Your task to perform on an android device: allow notifications from all sites in the chrome app Image 0: 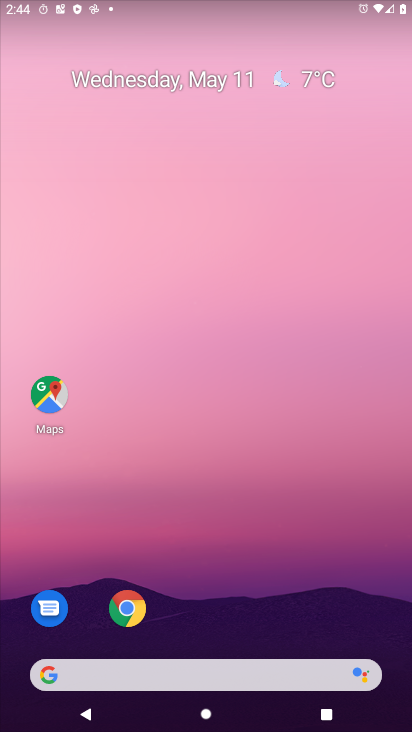
Step 0: drag from (255, 577) to (281, 167)
Your task to perform on an android device: allow notifications from all sites in the chrome app Image 1: 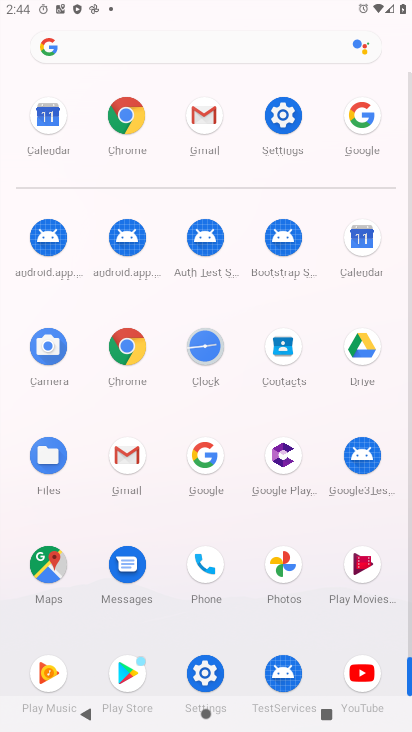
Step 1: click (121, 347)
Your task to perform on an android device: allow notifications from all sites in the chrome app Image 2: 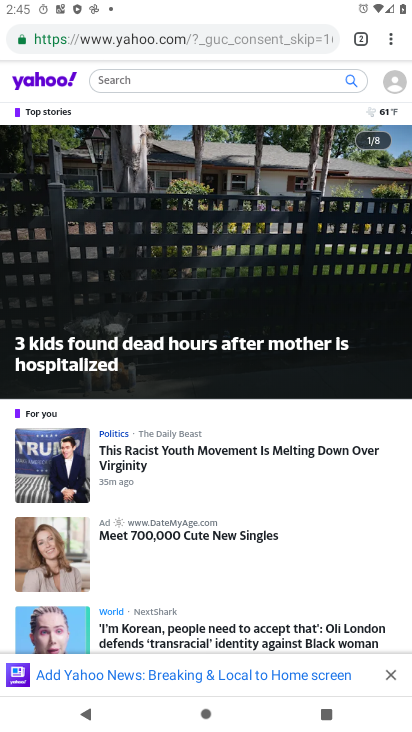
Step 2: click (386, 37)
Your task to perform on an android device: allow notifications from all sites in the chrome app Image 3: 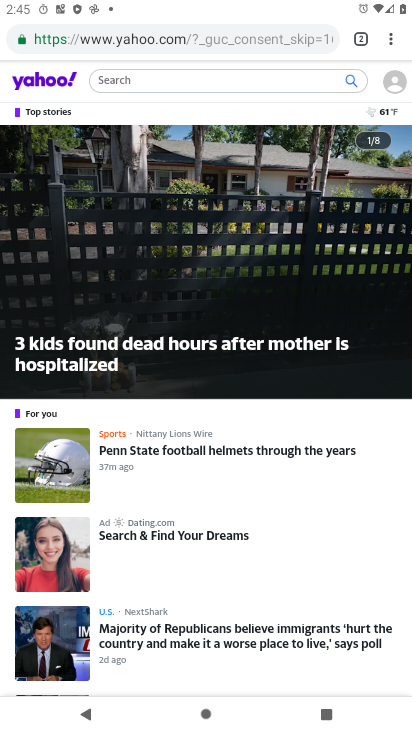
Step 3: click (385, 42)
Your task to perform on an android device: allow notifications from all sites in the chrome app Image 4: 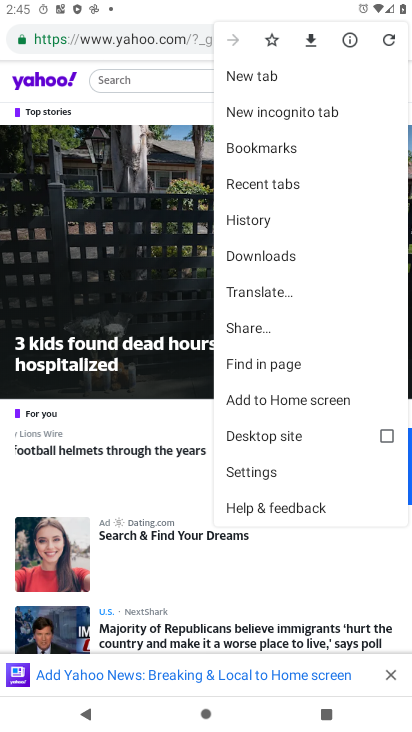
Step 4: drag from (361, 401) to (313, 208)
Your task to perform on an android device: allow notifications from all sites in the chrome app Image 5: 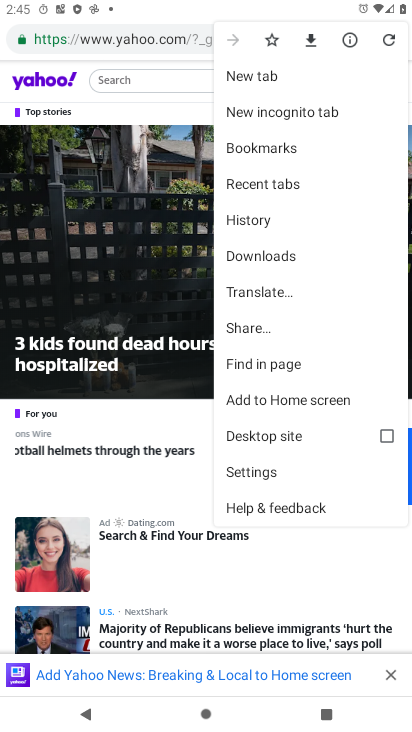
Step 5: click (253, 471)
Your task to perform on an android device: allow notifications from all sites in the chrome app Image 6: 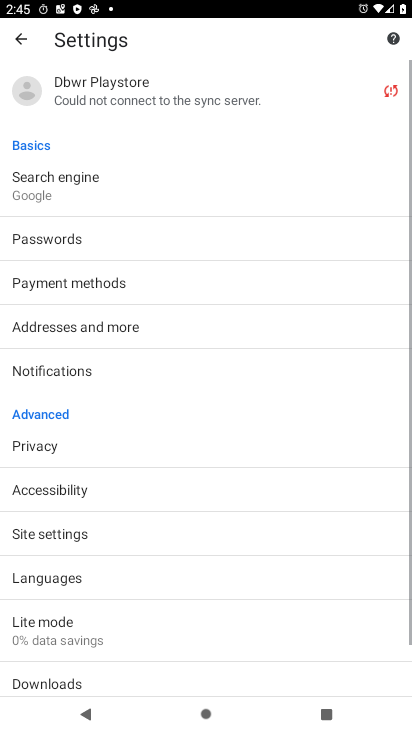
Step 6: drag from (238, 502) to (203, 215)
Your task to perform on an android device: allow notifications from all sites in the chrome app Image 7: 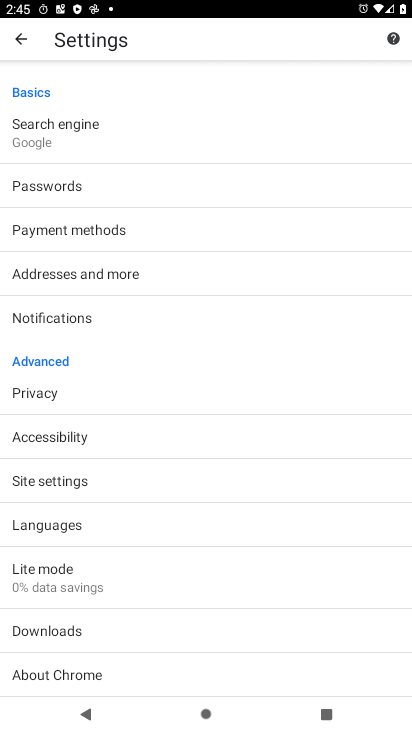
Step 7: click (51, 479)
Your task to perform on an android device: allow notifications from all sites in the chrome app Image 8: 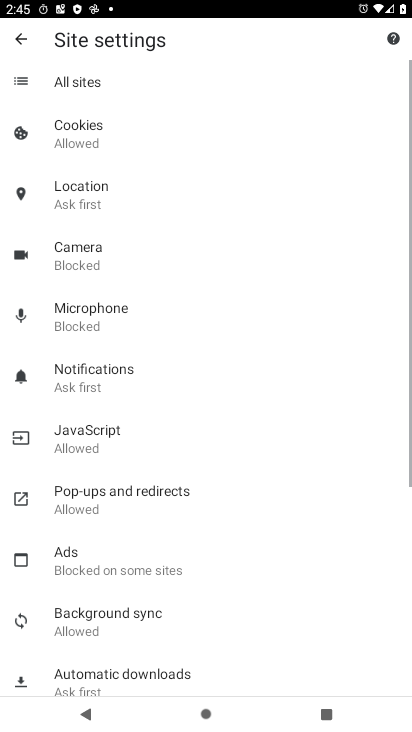
Step 8: drag from (180, 545) to (169, 389)
Your task to perform on an android device: allow notifications from all sites in the chrome app Image 9: 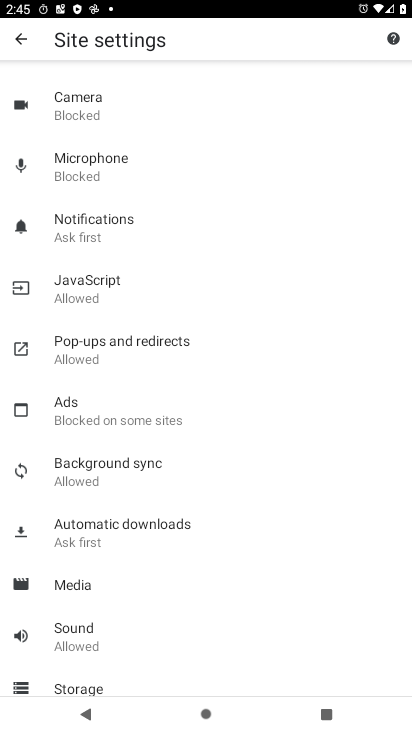
Step 9: click (94, 231)
Your task to perform on an android device: allow notifications from all sites in the chrome app Image 10: 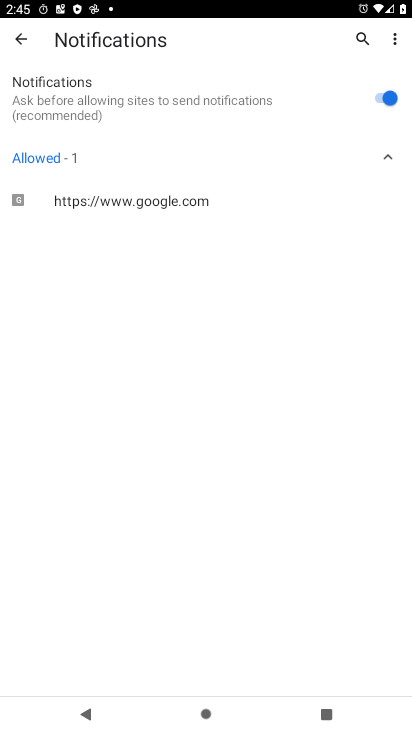
Step 10: task complete